Your task to perform on an android device: Open Reddit.com Image 0: 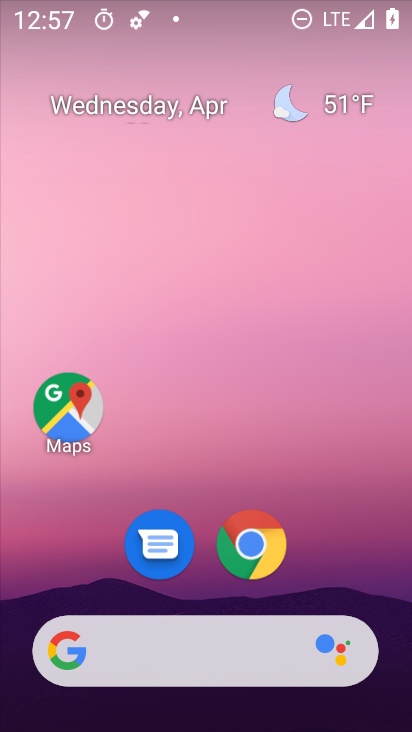
Step 0: drag from (320, 533) to (330, 130)
Your task to perform on an android device: Open Reddit.com Image 1: 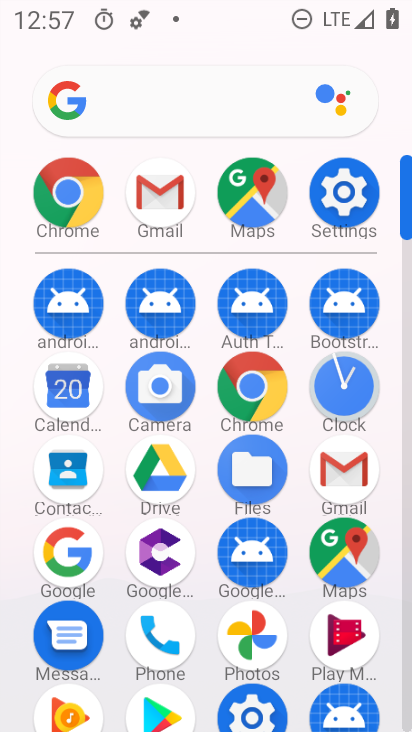
Step 1: click (243, 400)
Your task to perform on an android device: Open Reddit.com Image 2: 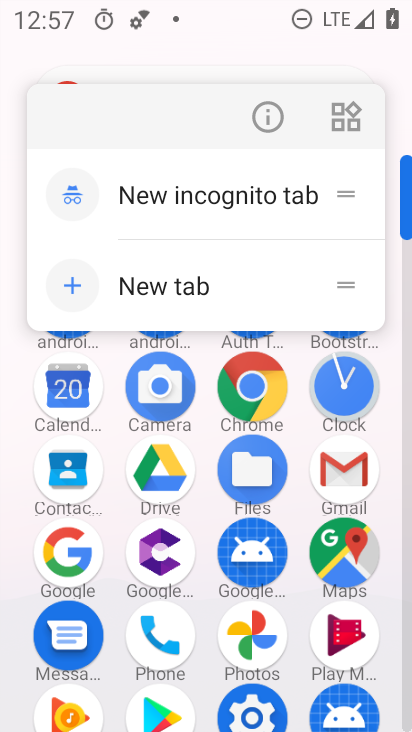
Step 2: click (252, 383)
Your task to perform on an android device: Open Reddit.com Image 3: 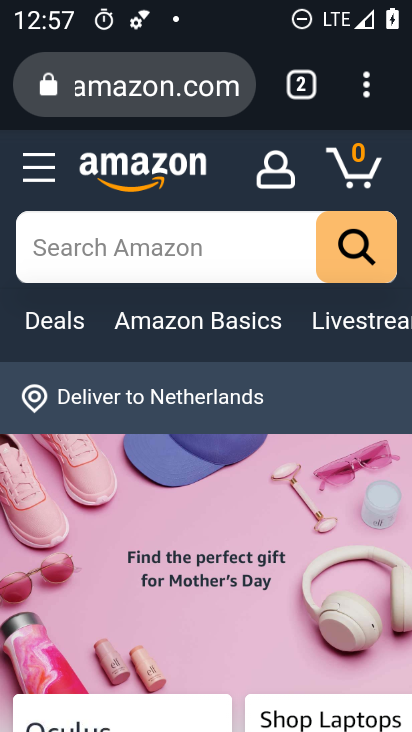
Step 3: press back button
Your task to perform on an android device: Open Reddit.com Image 4: 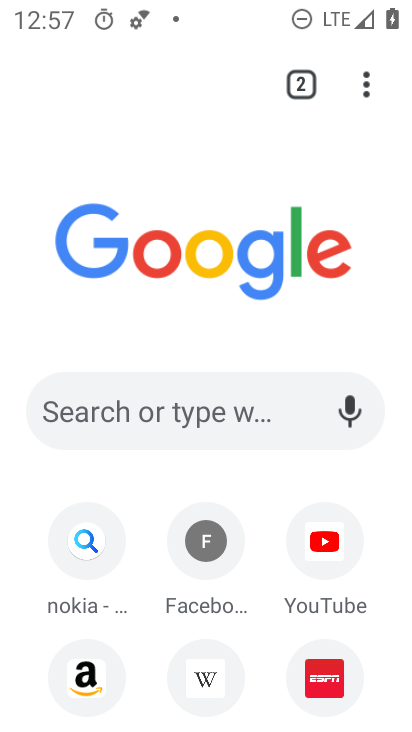
Step 4: click (273, 423)
Your task to perform on an android device: Open Reddit.com Image 5: 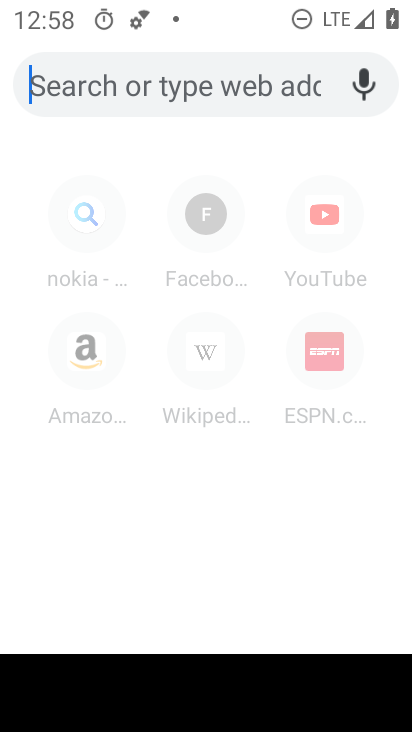
Step 5: type "Reddit.com"
Your task to perform on an android device: Open Reddit.com Image 6: 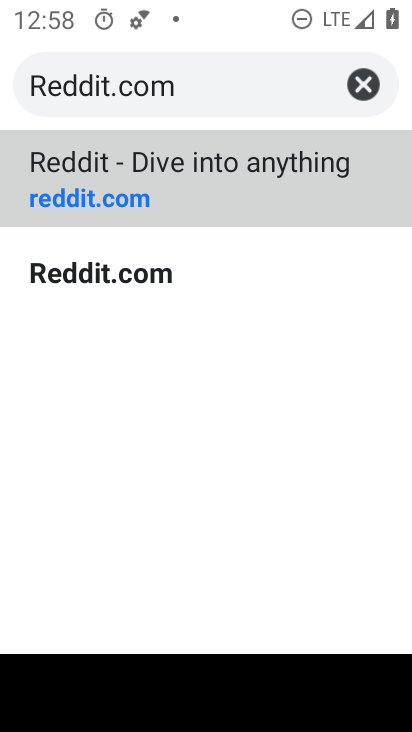
Step 6: click (144, 275)
Your task to perform on an android device: Open Reddit.com Image 7: 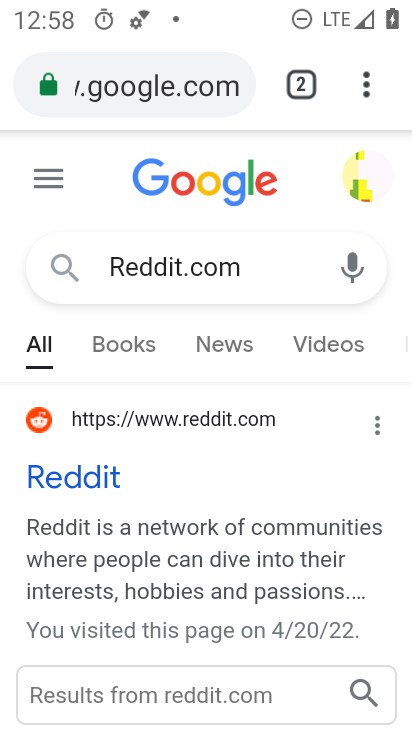
Step 7: task complete